Your task to perform on an android device: Go to accessibility settings Image 0: 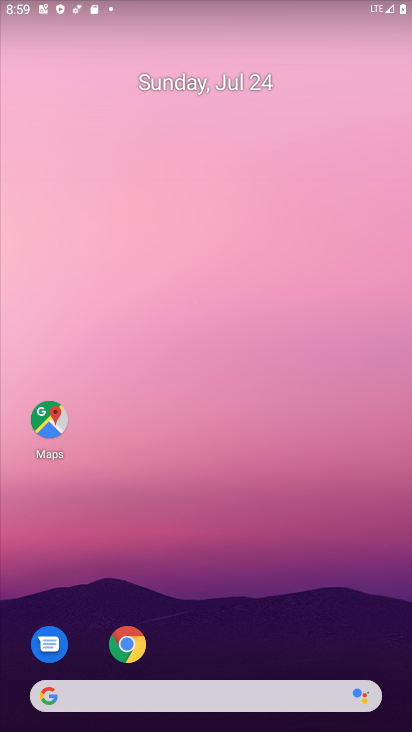
Step 0: drag from (17, 430) to (163, 38)
Your task to perform on an android device: Go to accessibility settings Image 1: 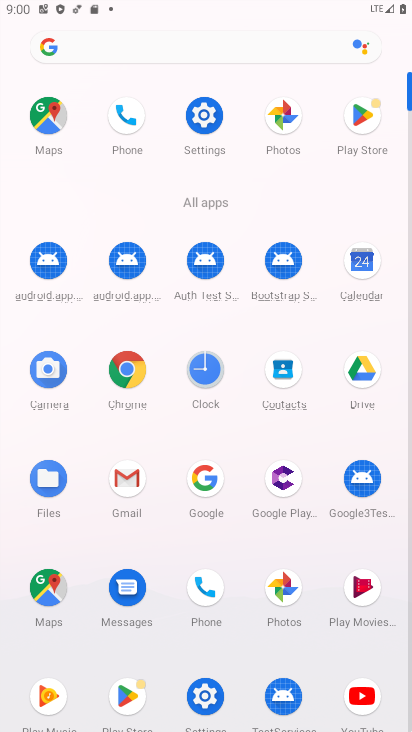
Step 1: click (198, 115)
Your task to perform on an android device: Go to accessibility settings Image 2: 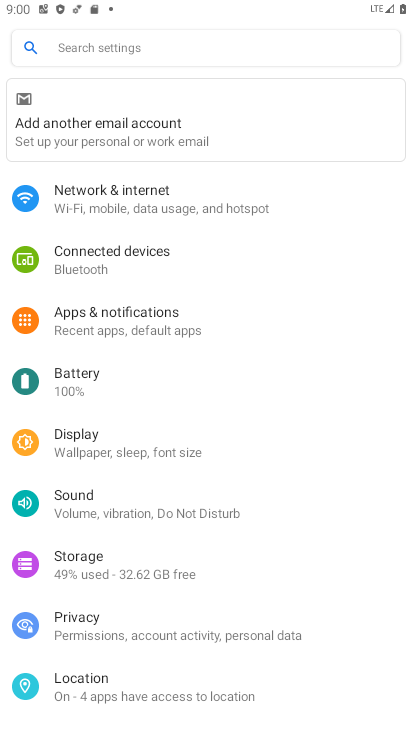
Step 2: drag from (0, 654) to (184, 224)
Your task to perform on an android device: Go to accessibility settings Image 3: 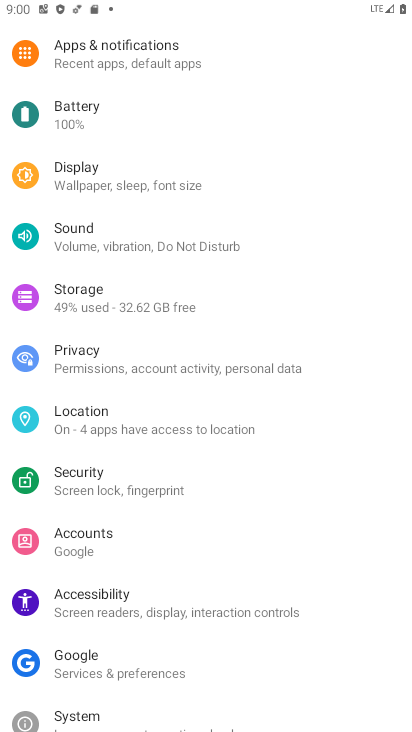
Step 3: click (90, 602)
Your task to perform on an android device: Go to accessibility settings Image 4: 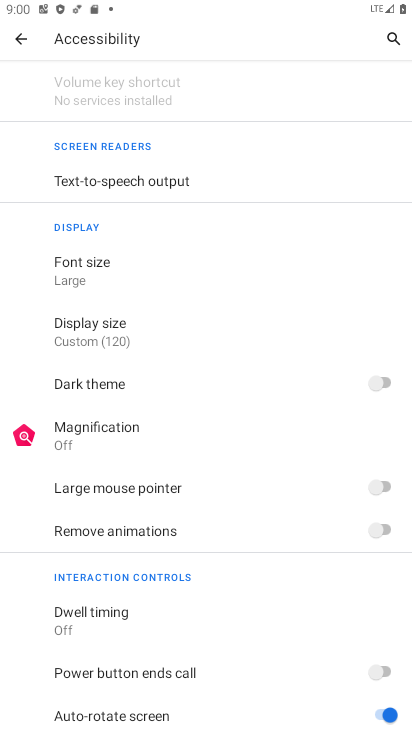
Step 4: task complete